Your task to perform on an android device: open chrome privacy settings Image 0: 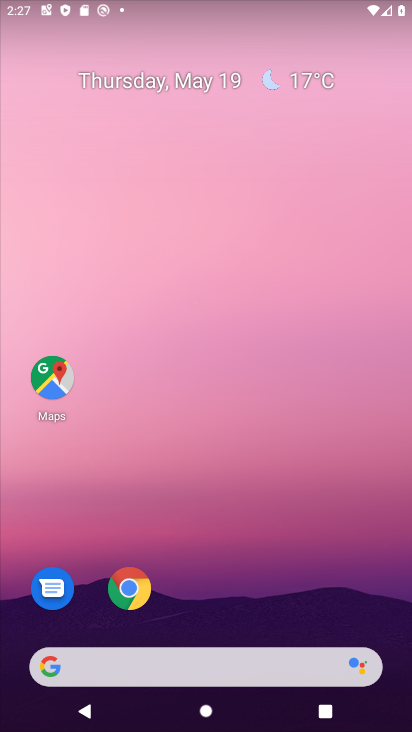
Step 0: click (259, 535)
Your task to perform on an android device: open chrome privacy settings Image 1: 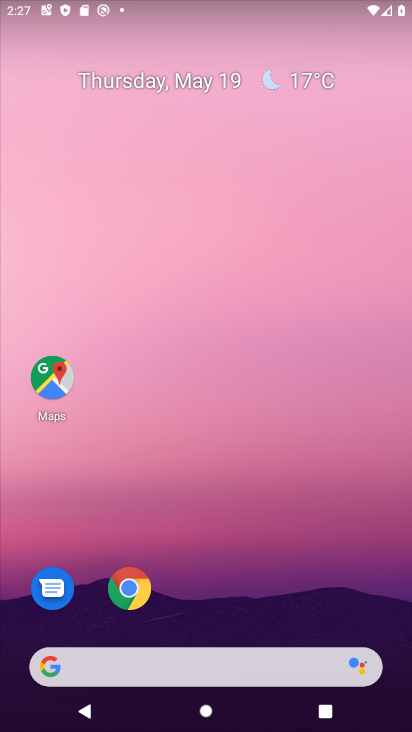
Step 1: click (124, 594)
Your task to perform on an android device: open chrome privacy settings Image 2: 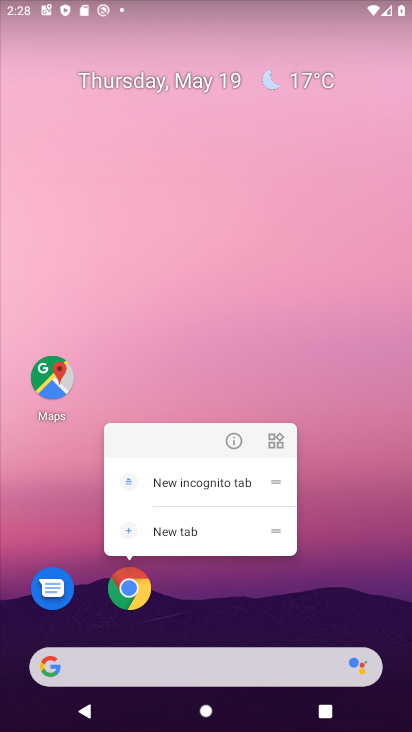
Step 2: click (135, 584)
Your task to perform on an android device: open chrome privacy settings Image 3: 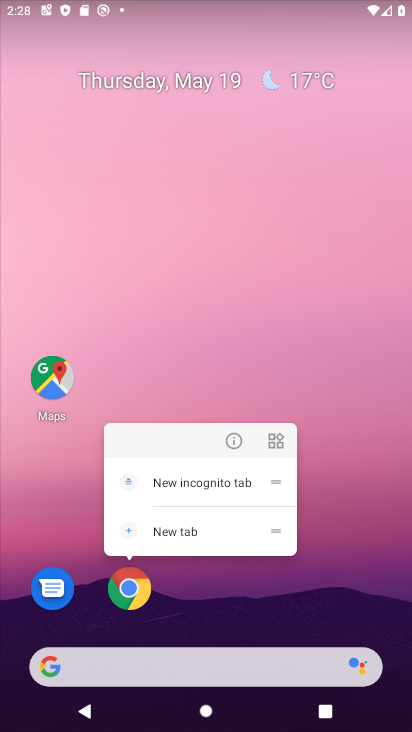
Step 3: drag from (362, 570) to (391, 81)
Your task to perform on an android device: open chrome privacy settings Image 4: 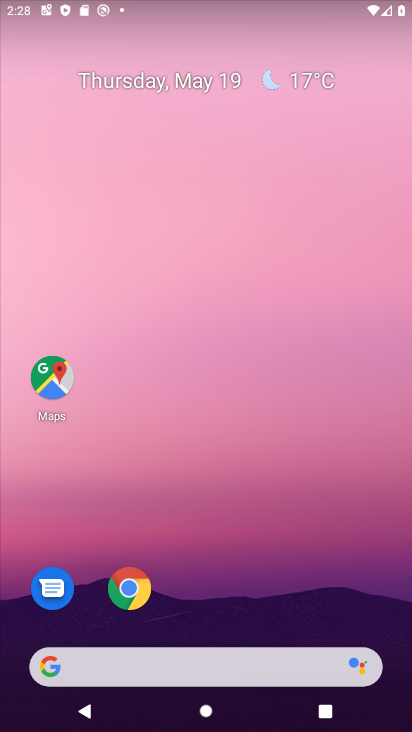
Step 4: drag from (288, 481) to (298, 78)
Your task to perform on an android device: open chrome privacy settings Image 5: 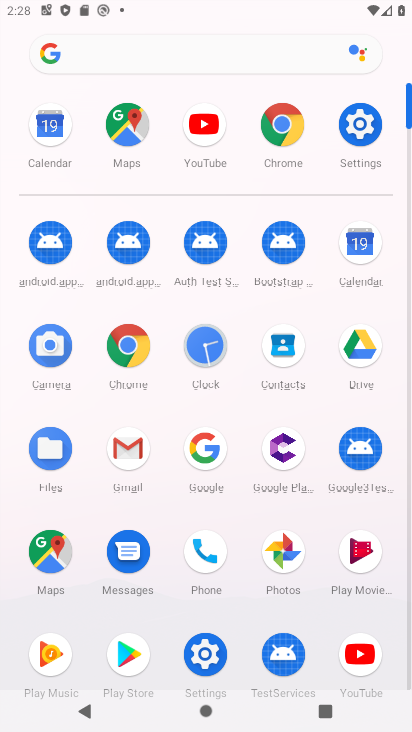
Step 5: click (277, 126)
Your task to perform on an android device: open chrome privacy settings Image 6: 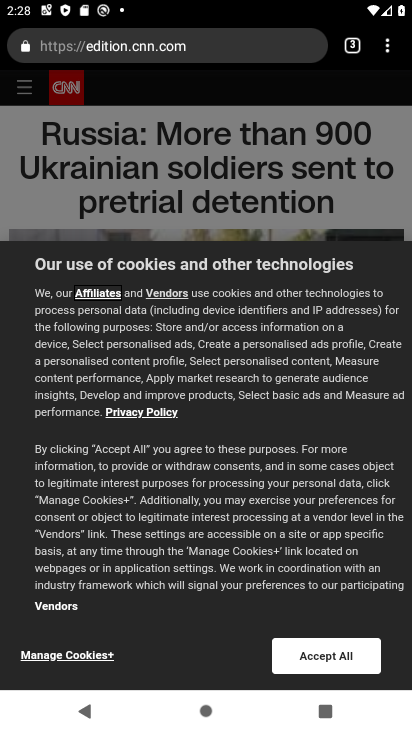
Step 6: click (380, 55)
Your task to perform on an android device: open chrome privacy settings Image 7: 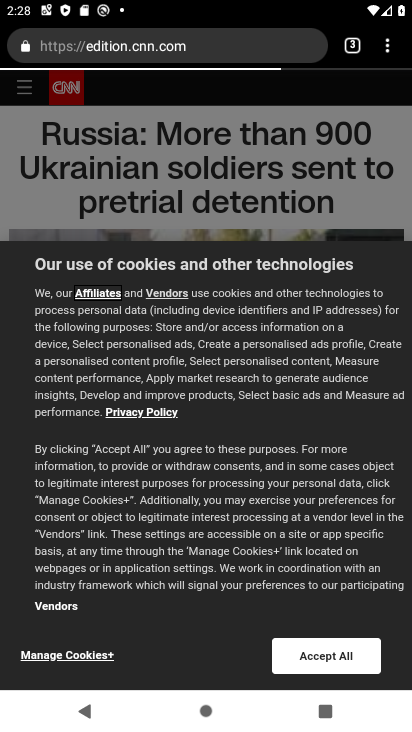
Step 7: drag from (381, 55) to (238, 505)
Your task to perform on an android device: open chrome privacy settings Image 8: 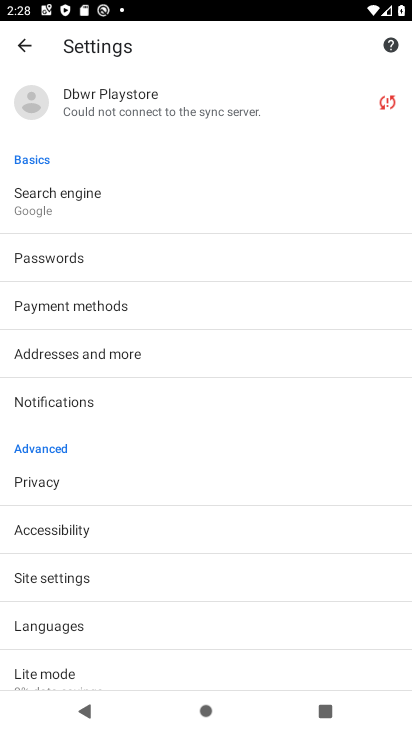
Step 8: drag from (67, 635) to (177, 213)
Your task to perform on an android device: open chrome privacy settings Image 9: 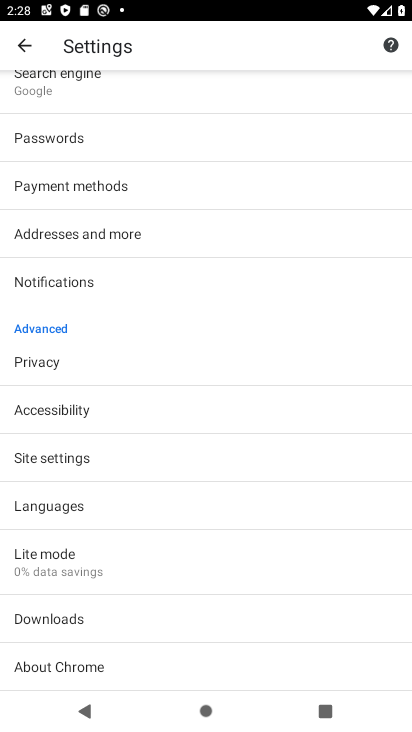
Step 9: click (54, 356)
Your task to perform on an android device: open chrome privacy settings Image 10: 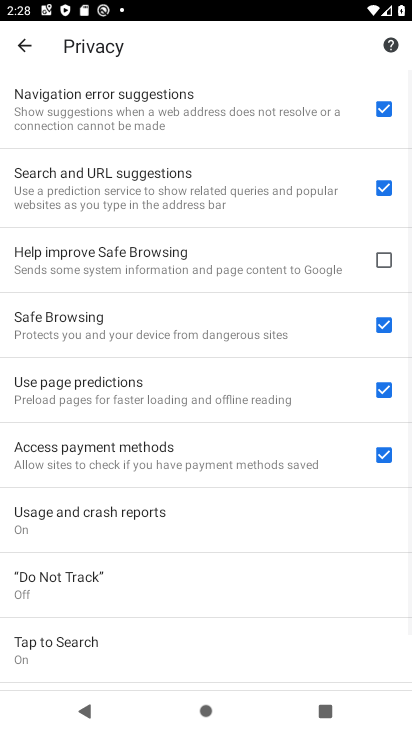
Step 10: task complete